Your task to perform on an android device: Is it going to rain this weekend? Image 0: 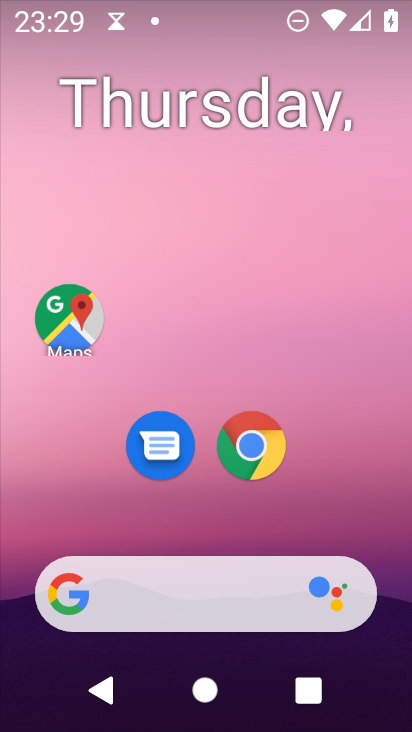
Step 0: drag from (221, 720) to (219, 50)
Your task to perform on an android device: Is it going to rain this weekend? Image 1: 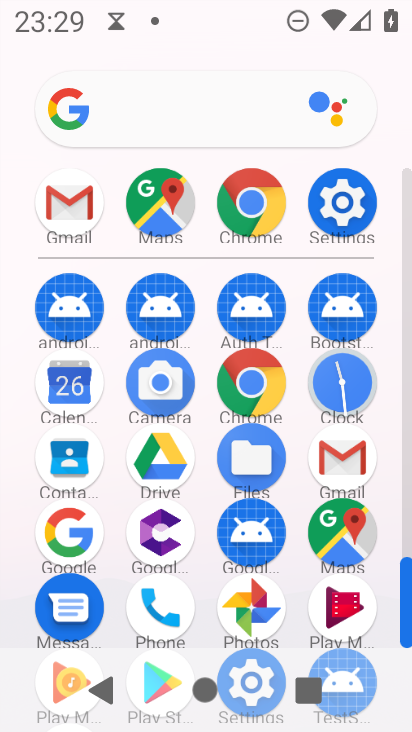
Step 1: click (80, 529)
Your task to perform on an android device: Is it going to rain this weekend? Image 2: 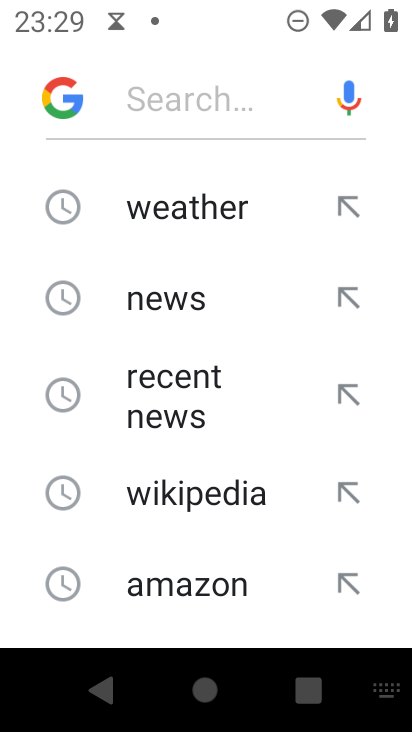
Step 2: click (187, 209)
Your task to perform on an android device: Is it going to rain this weekend? Image 3: 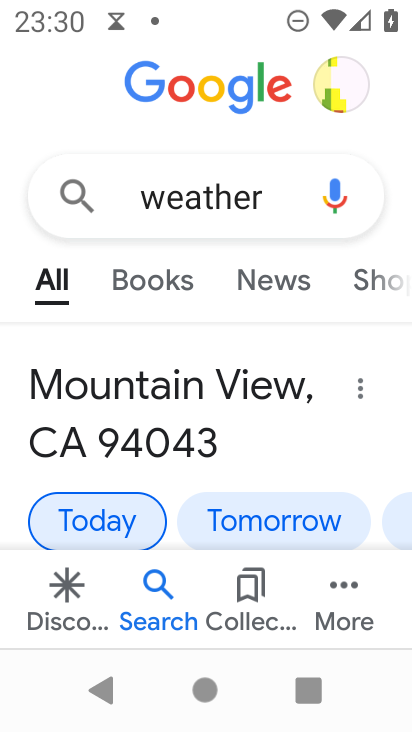
Step 3: click (397, 515)
Your task to perform on an android device: Is it going to rain this weekend? Image 4: 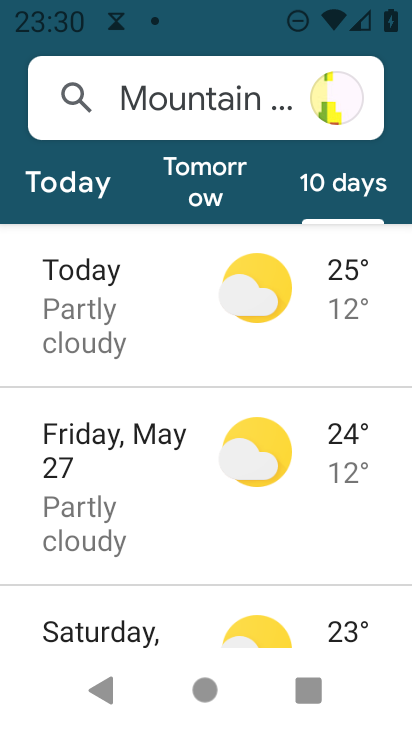
Step 4: click (114, 625)
Your task to perform on an android device: Is it going to rain this weekend? Image 5: 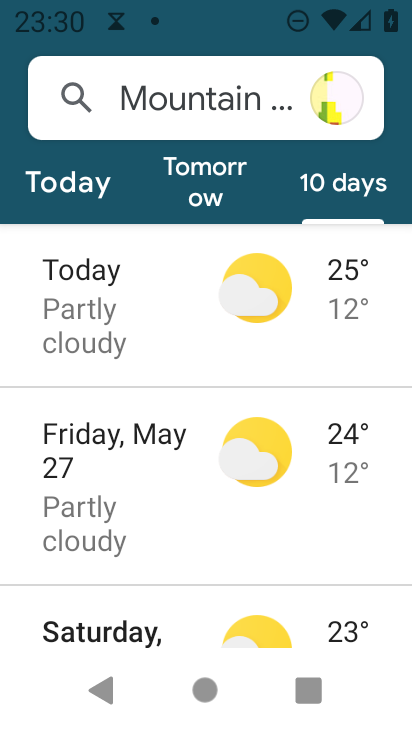
Step 5: task complete